Your task to perform on an android device: turn off notifications in google photos Image 0: 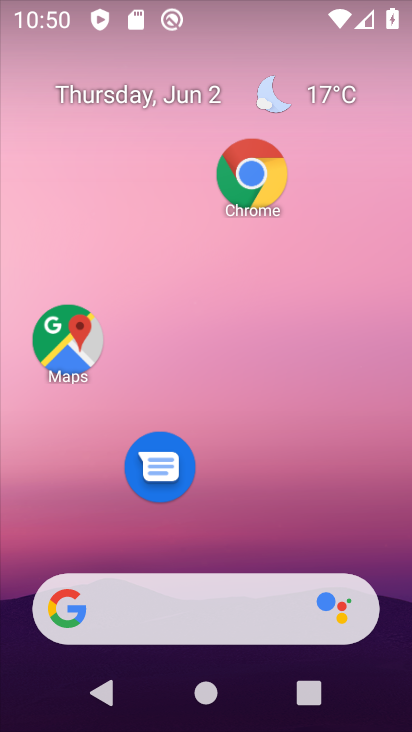
Step 0: drag from (290, 508) to (338, 5)
Your task to perform on an android device: turn off notifications in google photos Image 1: 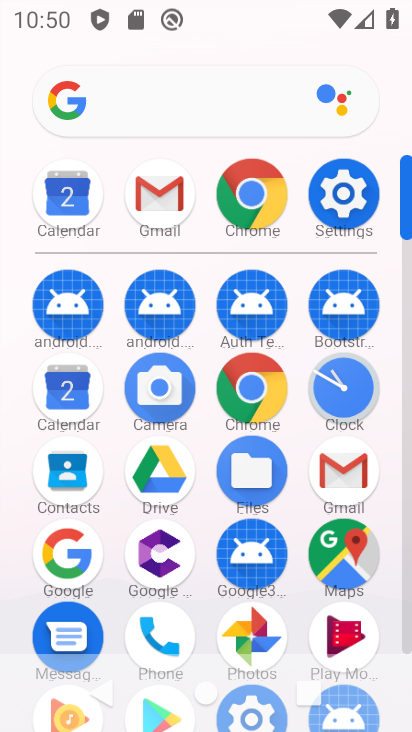
Step 1: click (257, 653)
Your task to perform on an android device: turn off notifications in google photos Image 2: 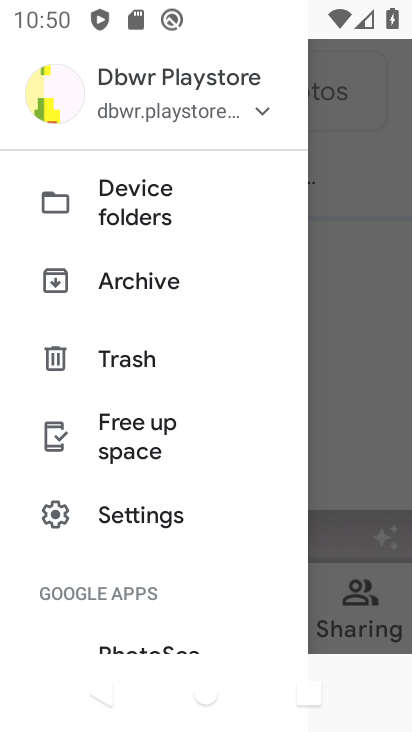
Step 2: click (157, 511)
Your task to perform on an android device: turn off notifications in google photos Image 3: 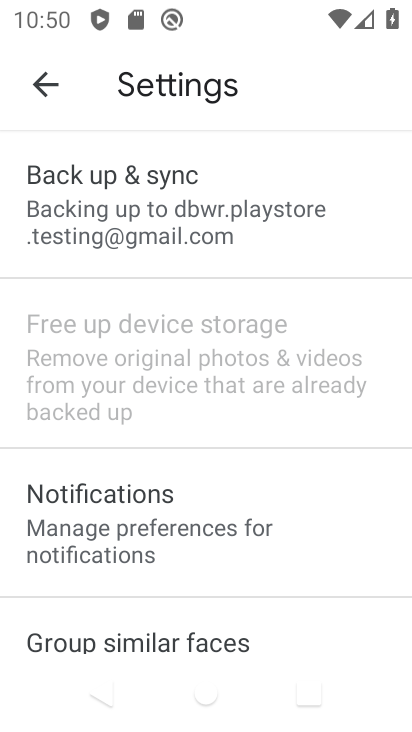
Step 3: click (92, 500)
Your task to perform on an android device: turn off notifications in google photos Image 4: 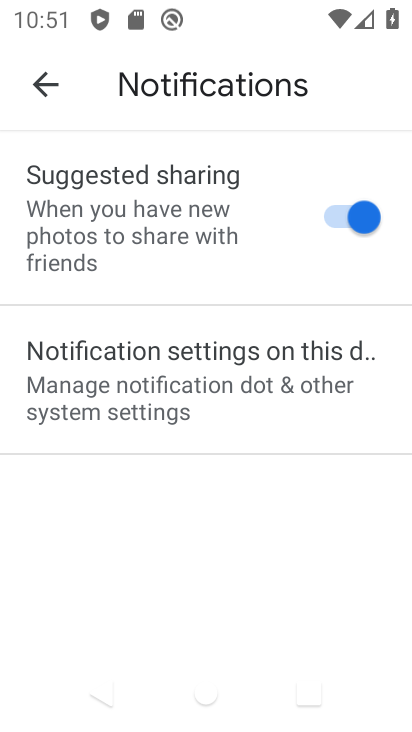
Step 4: click (374, 209)
Your task to perform on an android device: turn off notifications in google photos Image 5: 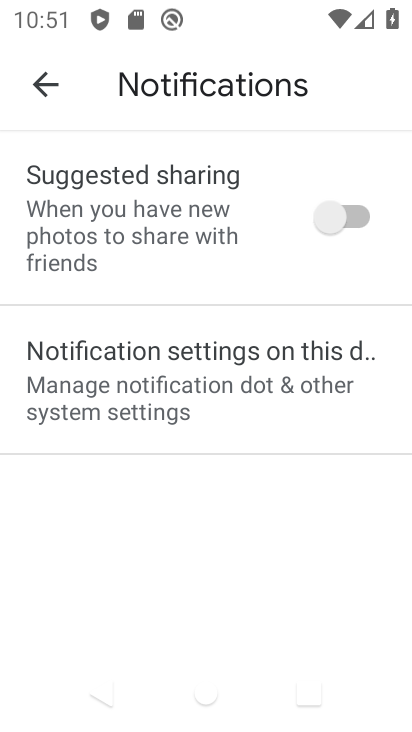
Step 5: task complete